Your task to perform on an android device: change notifications settings Image 0: 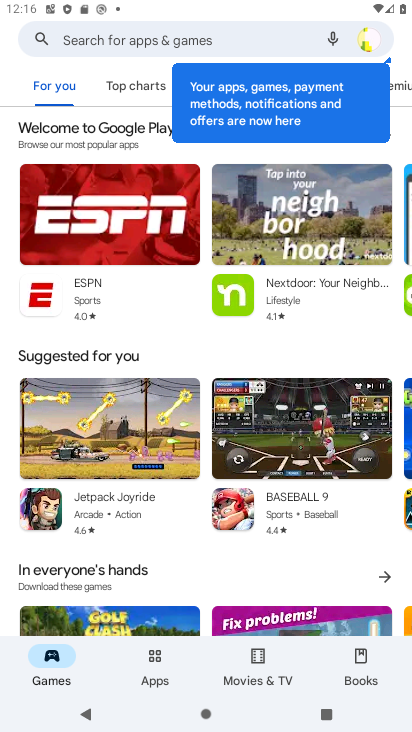
Step 0: press home button
Your task to perform on an android device: change notifications settings Image 1: 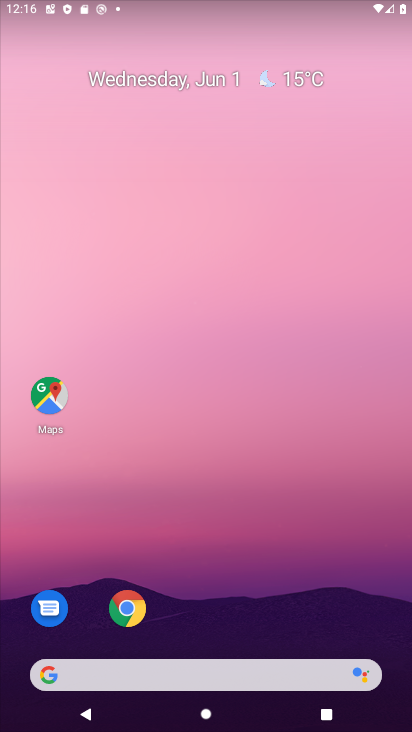
Step 1: drag from (248, 637) to (279, 133)
Your task to perform on an android device: change notifications settings Image 2: 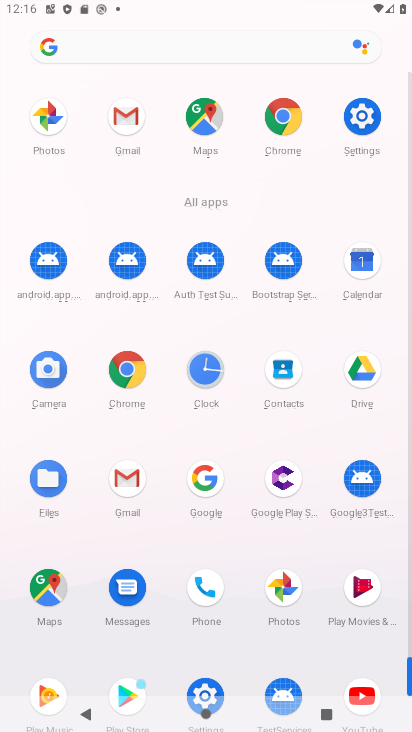
Step 2: click (362, 146)
Your task to perform on an android device: change notifications settings Image 3: 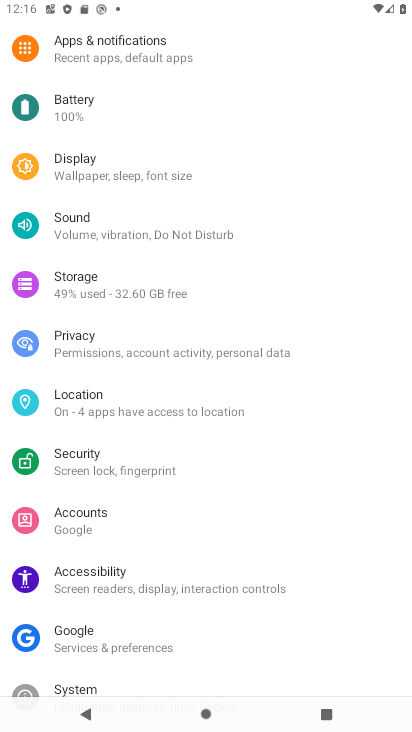
Step 3: click (139, 52)
Your task to perform on an android device: change notifications settings Image 4: 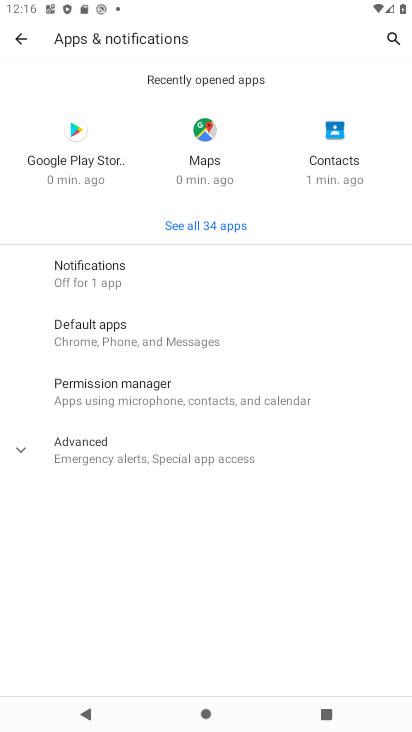
Step 4: click (113, 275)
Your task to perform on an android device: change notifications settings Image 5: 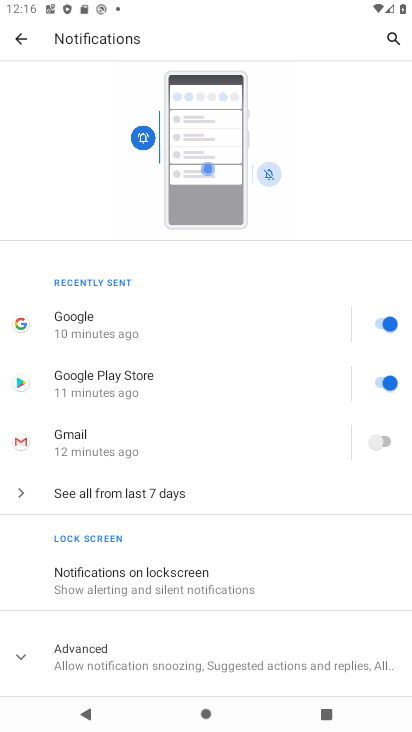
Step 5: click (383, 323)
Your task to perform on an android device: change notifications settings Image 6: 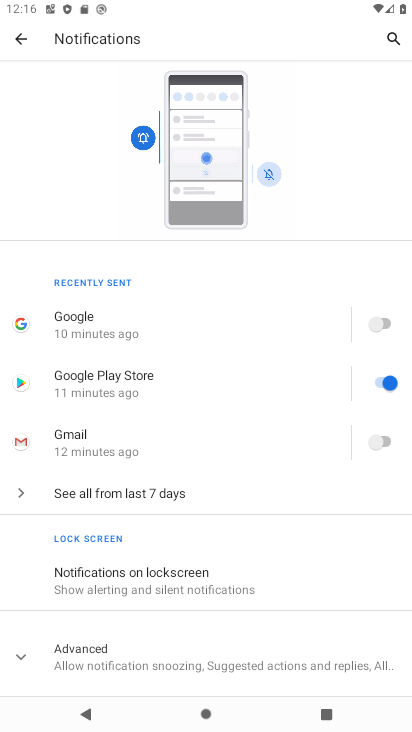
Step 6: click (380, 385)
Your task to perform on an android device: change notifications settings Image 7: 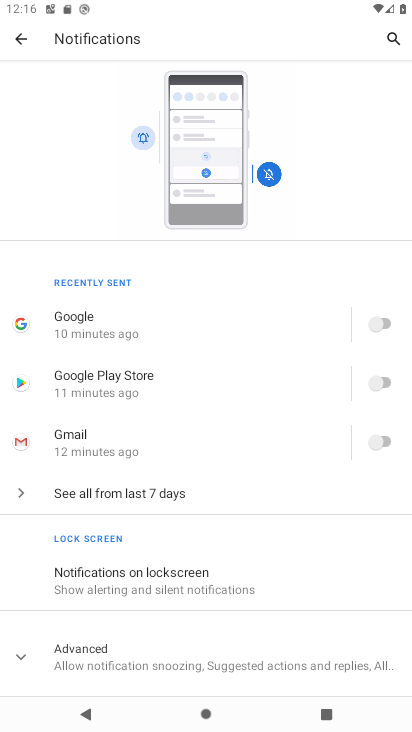
Step 7: click (194, 498)
Your task to perform on an android device: change notifications settings Image 8: 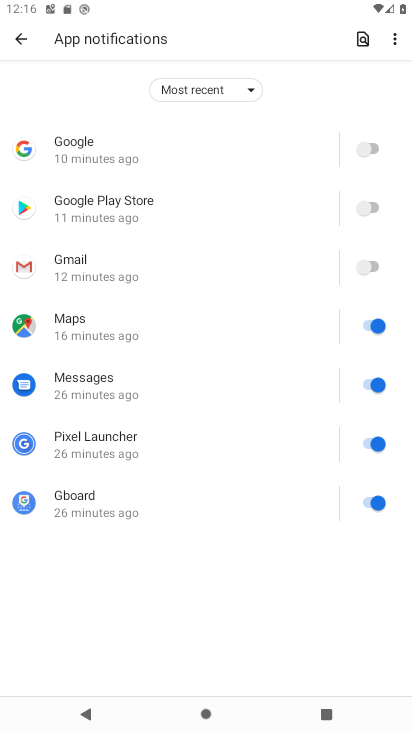
Step 8: click (364, 328)
Your task to perform on an android device: change notifications settings Image 9: 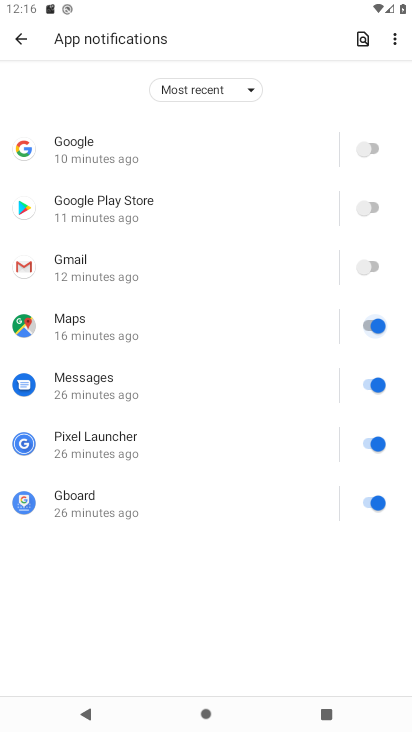
Step 9: click (357, 398)
Your task to perform on an android device: change notifications settings Image 10: 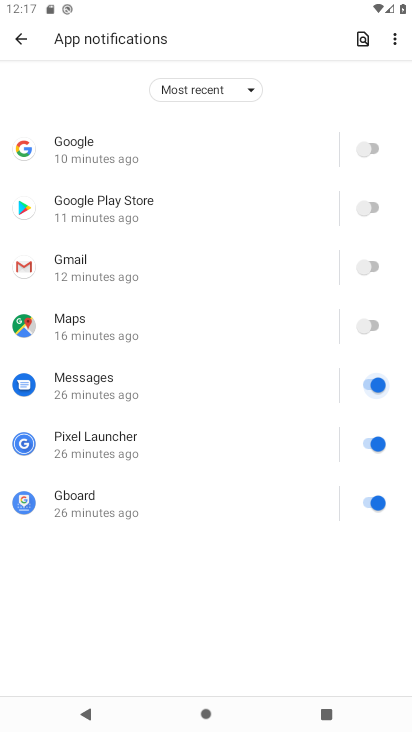
Step 10: click (361, 409)
Your task to perform on an android device: change notifications settings Image 11: 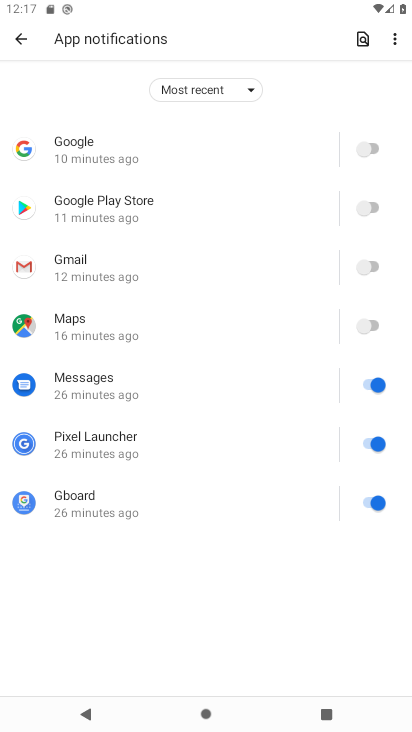
Step 11: click (362, 503)
Your task to perform on an android device: change notifications settings Image 12: 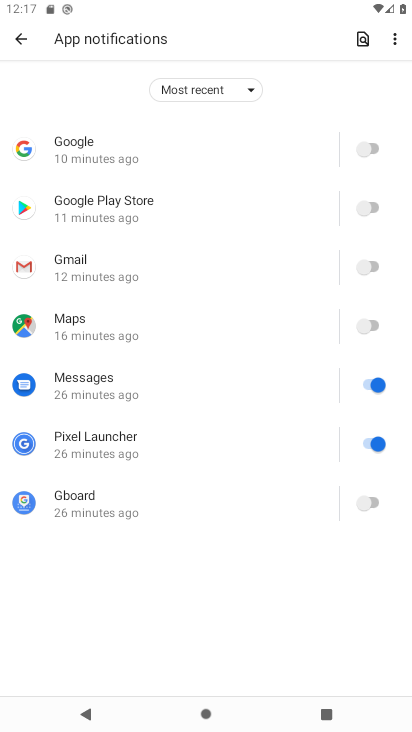
Step 12: click (359, 438)
Your task to perform on an android device: change notifications settings Image 13: 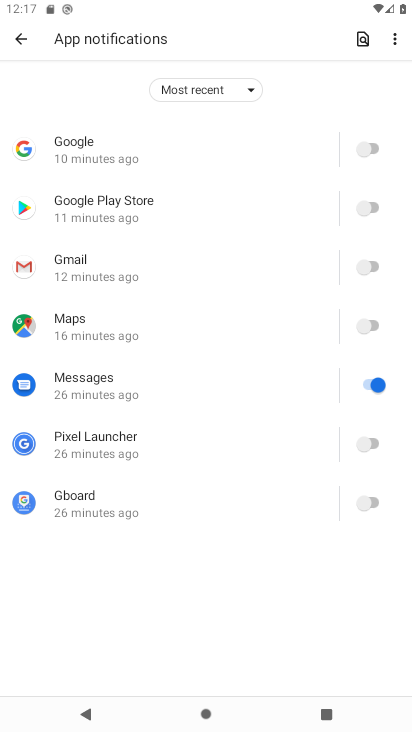
Step 13: click (360, 373)
Your task to perform on an android device: change notifications settings Image 14: 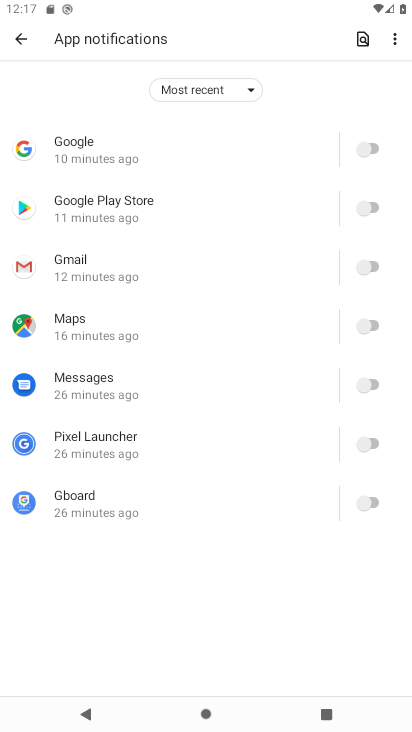
Step 14: task complete